Your task to perform on an android device: change your default location settings in chrome Image 0: 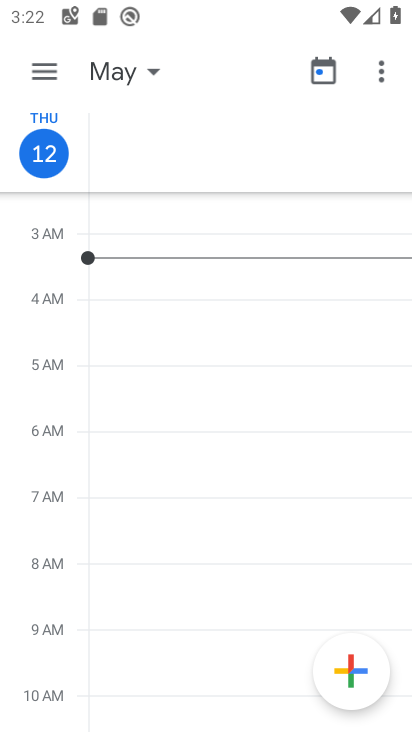
Step 0: drag from (275, 668) to (286, 379)
Your task to perform on an android device: change your default location settings in chrome Image 1: 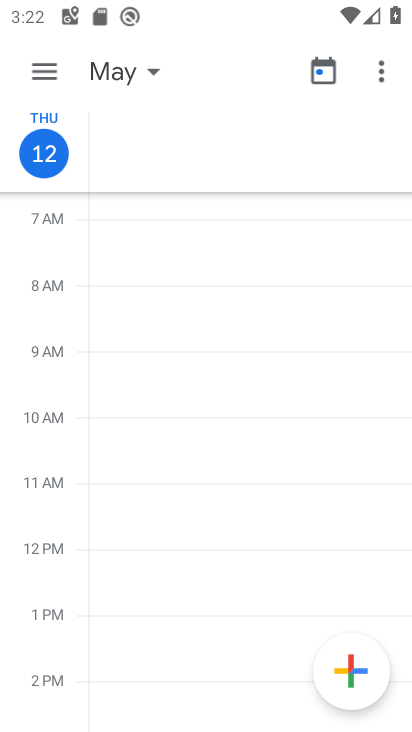
Step 1: press home button
Your task to perform on an android device: change your default location settings in chrome Image 2: 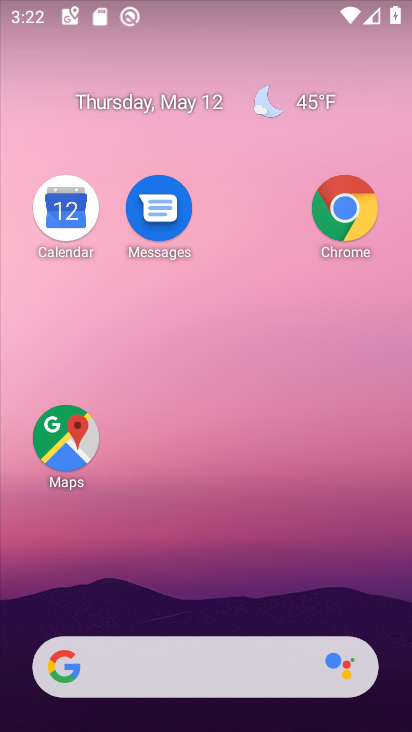
Step 2: drag from (209, 575) to (254, 345)
Your task to perform on an android device: change your default location settings in chrome Image 3: 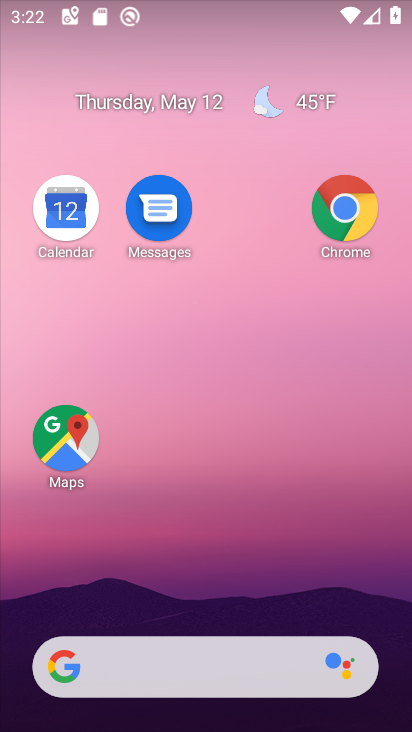
Step 3: click (355, 205)
Your task to perform on an android device: change your default location settings in chrome Image 4: 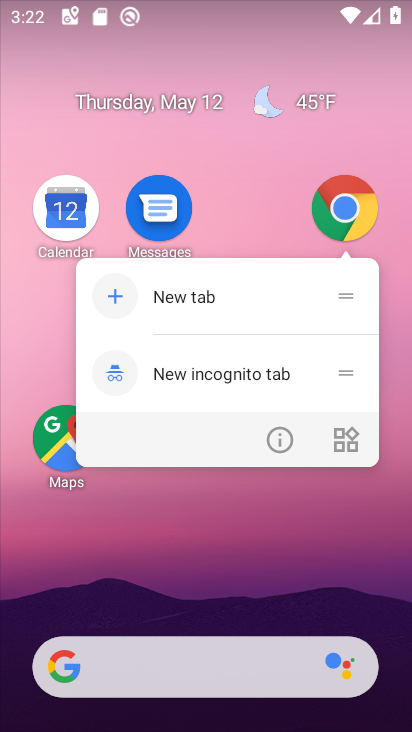
Step 4: click (258, 434)
Your task to perform on an android device: change your default location settings in chrome Image 5: 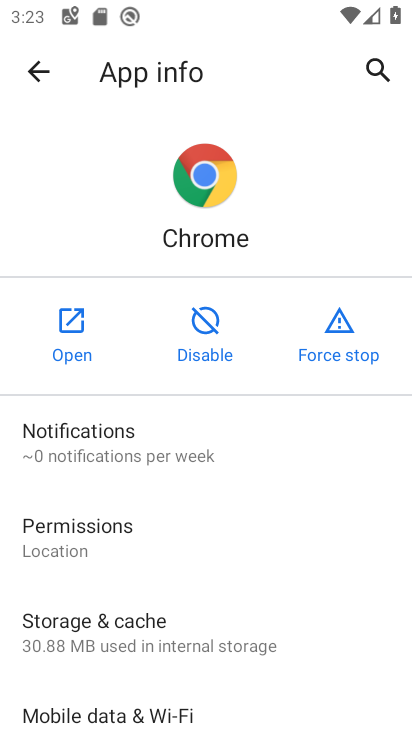
Step 5: click (95, 347)
Your task to perform on an android device: change your default location settings in chrome Image 6: 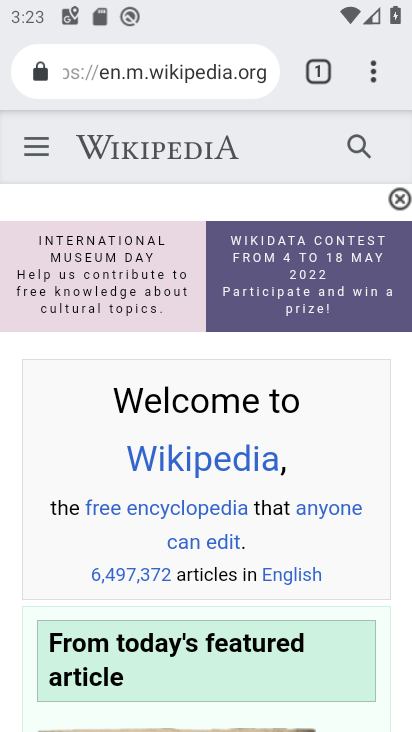
Step 6: drag from (207, 449) to (221, 336)
Your task to perform on an android device: change your default location settings in chrome Image 7: 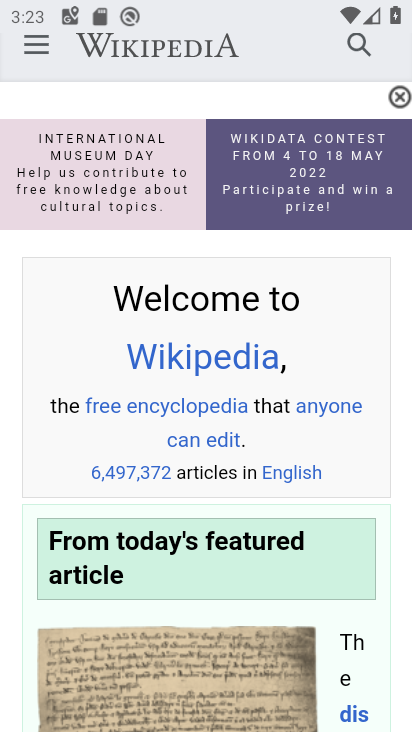
Step 7: drag from (254, 390) to (279, 316)
Your task to perform on an android device: change your default location settings in chrome Image 8: 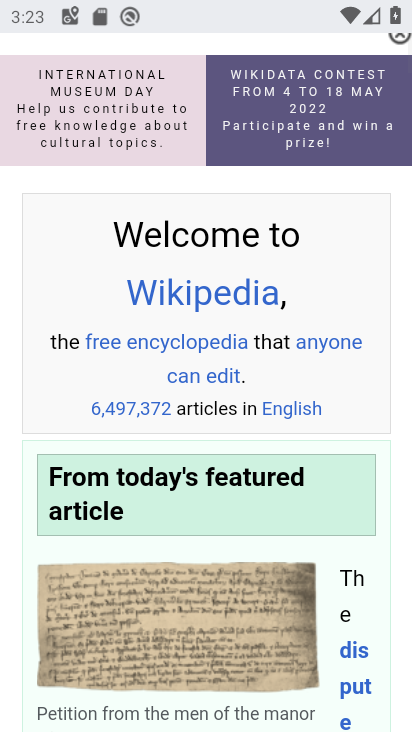
Step 8: drag from (338, 164) to (321, 324)
Your task to perform on an android device: change your default location settings in chrome Image 9: 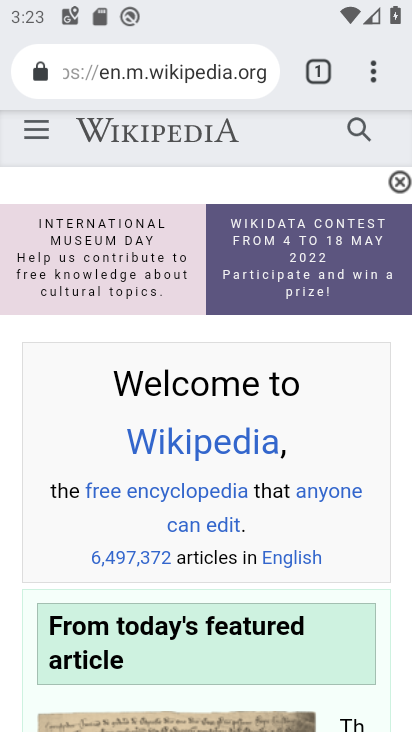
Step 9: drag from (376, 77) to (125, 572)
Your task to perform on an android device: change your default location settings in chrome Image 10: 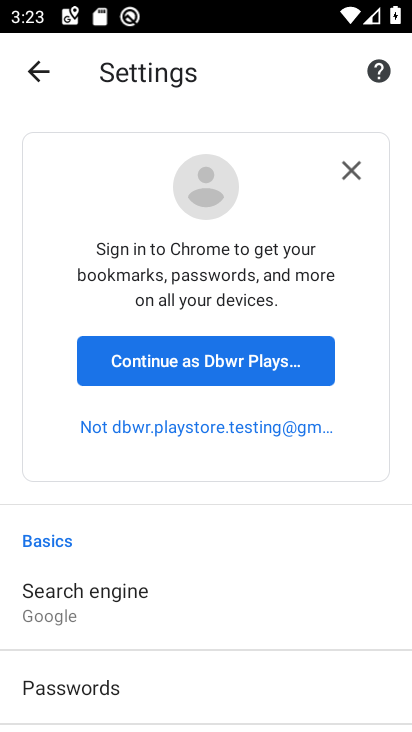
Step 10: drag from (176, 575) to (234, 274)
Your task to perform on an android device: change your default location settings in chrome Image 11: 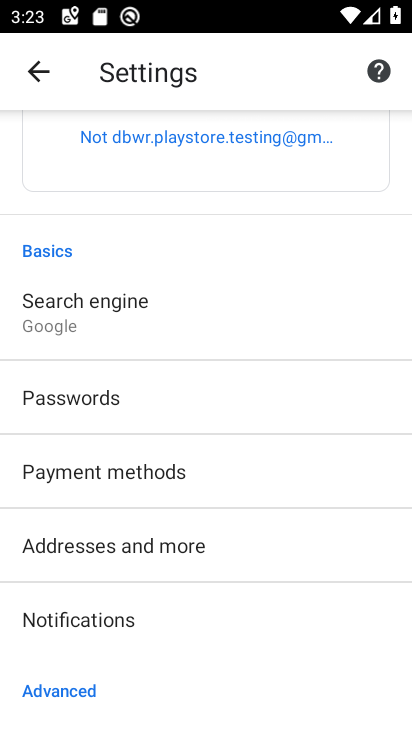
Step 11: drag from (181, 567) to (253, 238)
Your task to perform on an android device: change your default location settings in chrome Image 12: 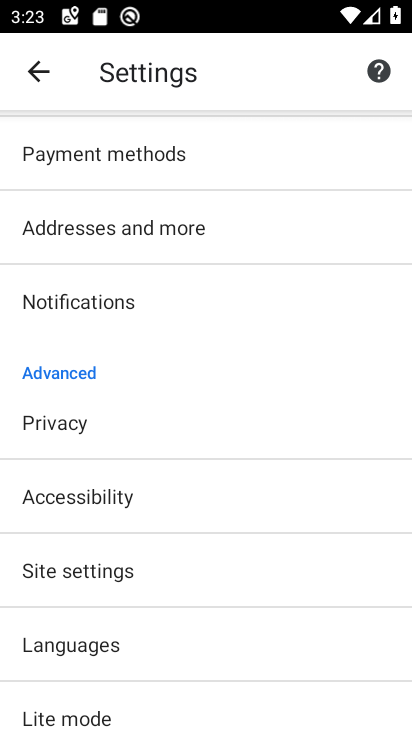
Step 12: click (112, 576)
Your task to perform on an android device: change your default location settings in chrome Image 13: 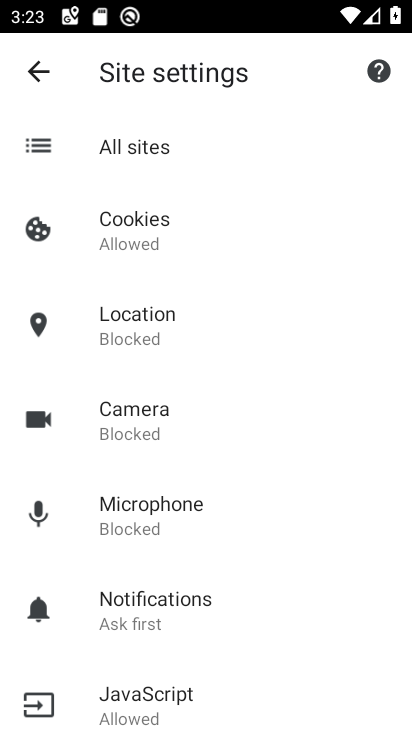
Step 13: click (125, 340)
Your task to perform on an android device: change your default location settings in chrome Image 14: 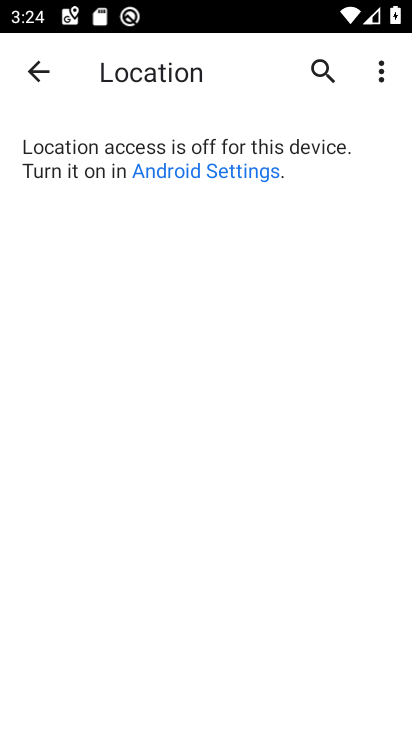
Step 14: click (175, 349)
Your task to perform on an android device: change your default location settings in chrome Image 15: 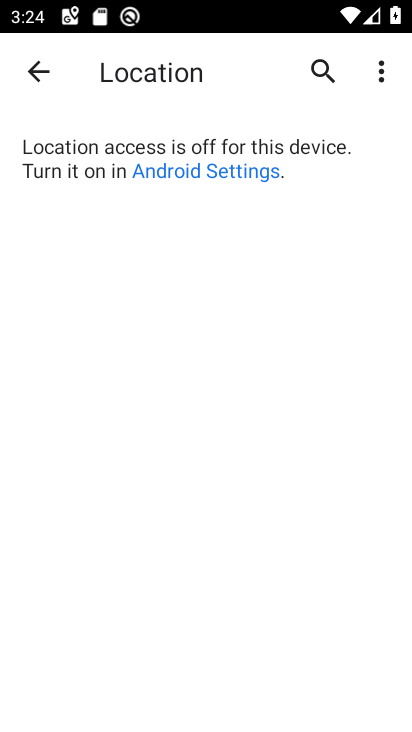
Step 15: task complete